Your task to perform on an android device: turn on location history Image 0: 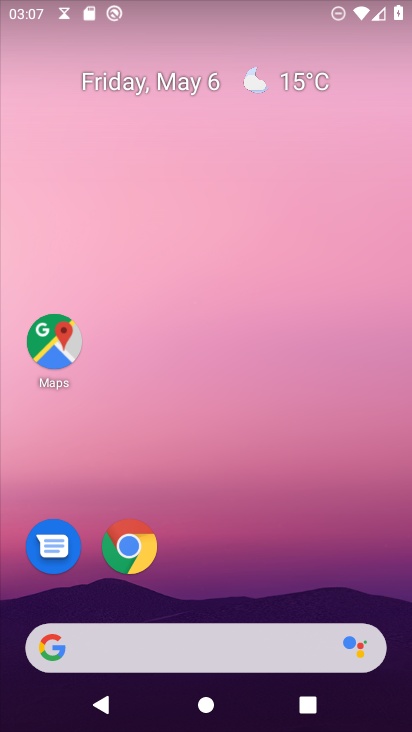
Step 0: click (134, 554)
Your task to perform on an android device: turn on location history Image 1: 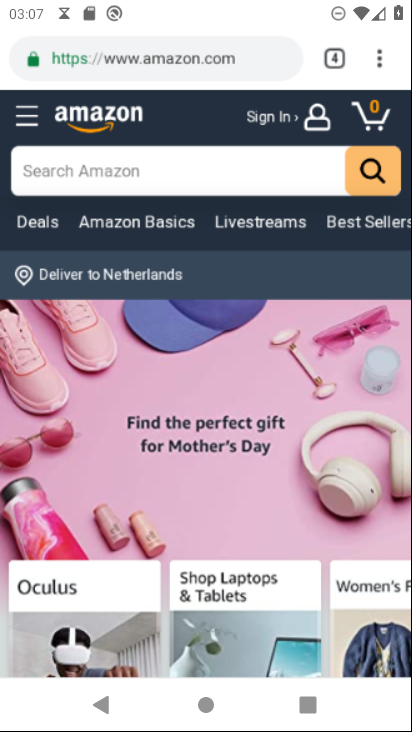
Step 1: press home button
Your task to perform on an android device: turn on location history Image 2: 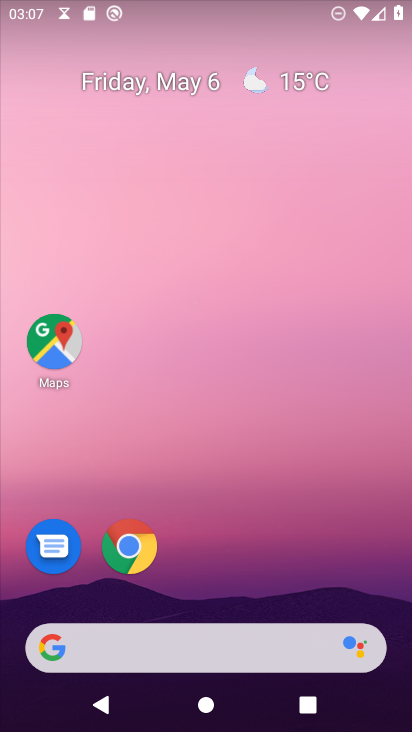
Step 2: drag from (258, 599) to (259, 199)
Your task to perform on an android device: turn on location history Image 3: 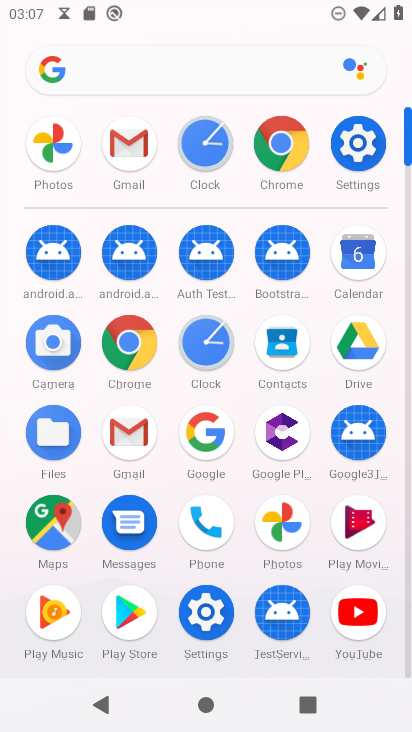
Step 3: click (352, 141)
Your task to perform on an android device: turn on location history Image 4: 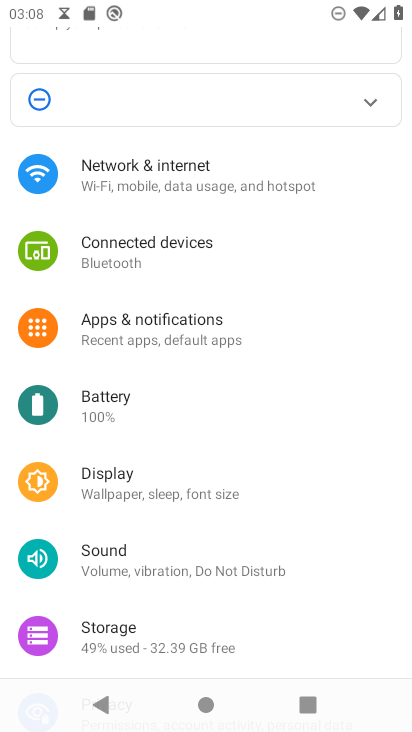
Step 4: click (289, 122)
Your task to perform on an android device: turn on location history Image 5: 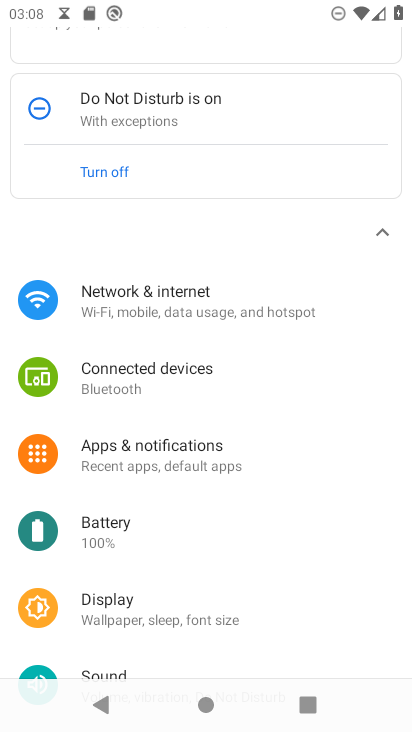
Step 5: click (293, 128)
Your task to perform on an android device: turn on location history Image 6: 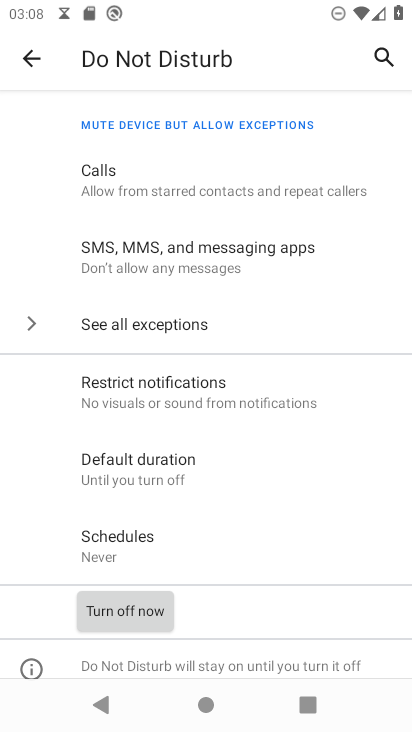
Step 6: click (26, 66)
Your task to perform on an android device: turn on location history Image 7: 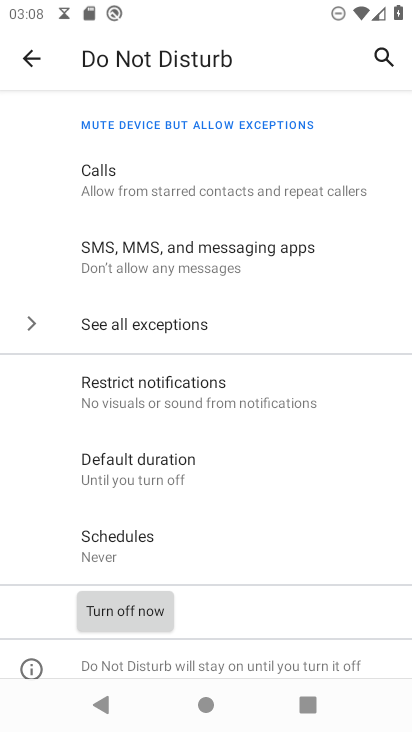
Step 7: click (27, 64)
Your task to perform on an android device: turn on location history Image 8: 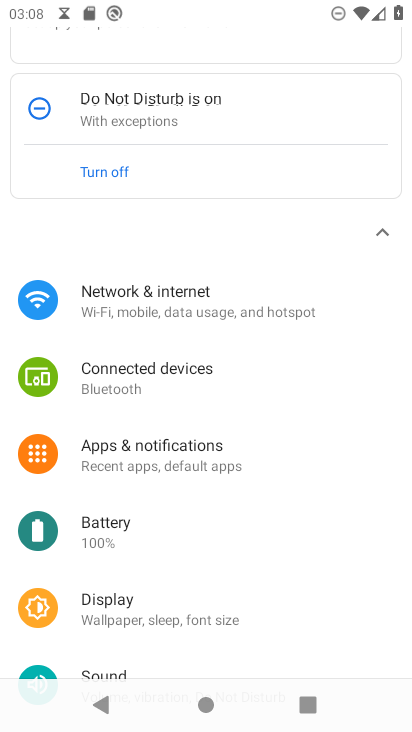
Step 8: drag from (203, 637) to (185, 354)
Your task to perform on an android device: turn on location history Image 9: 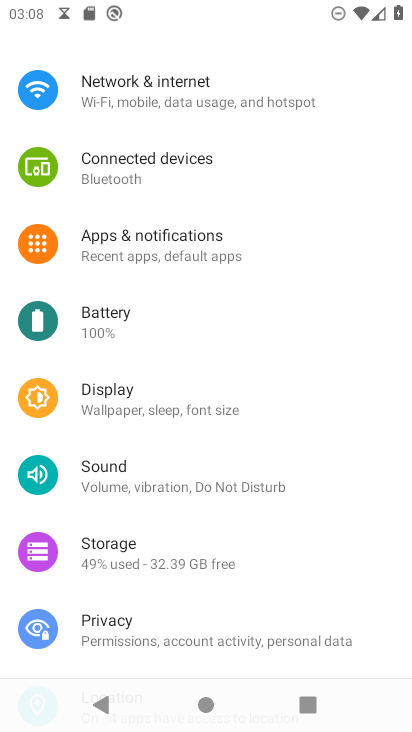
Step 9: drag from (157, 590) to (124, 313)
Your task to perform on an android device: turn on location history Image 10: 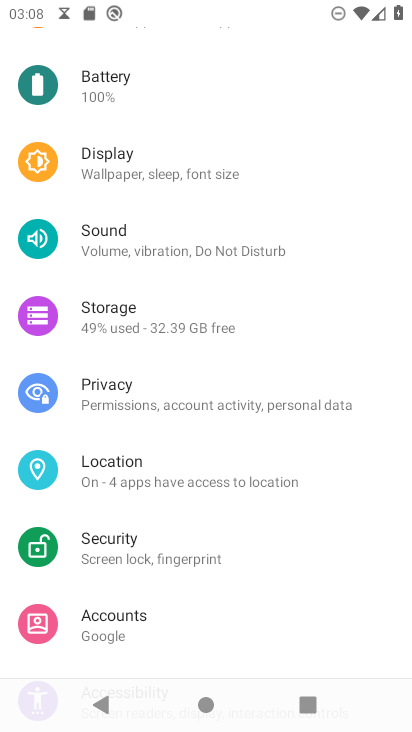
Step 10: click (132, 465)
Your task to perform on an android device: turn on location history Image 11: 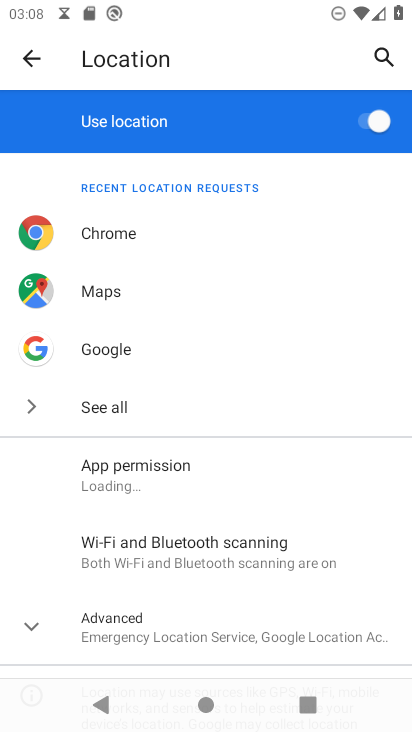
Step 11: click (219, 637)
Your task to perform on an android device: turn on location history Image 12: 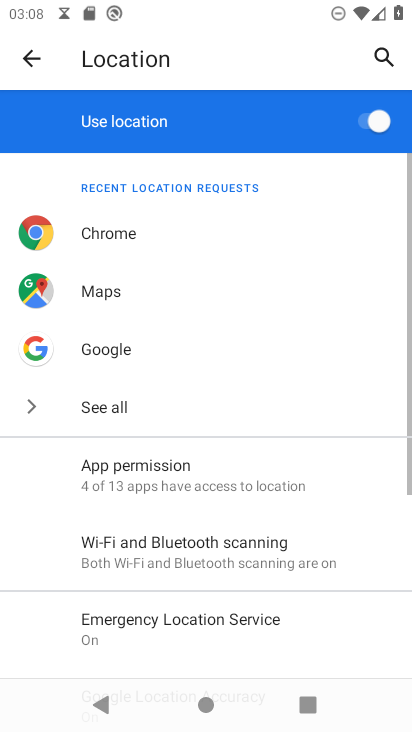
Step 12: drag from (221, 622) to (186, 371)
Your task to perform on an android device: turn on location history Image 13: 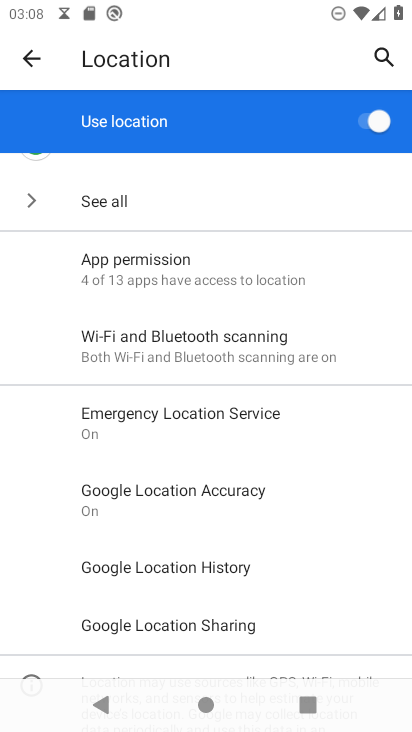
Step 13: click (229, 565)
Your task to perform on an android device: turn on location history Image 14: 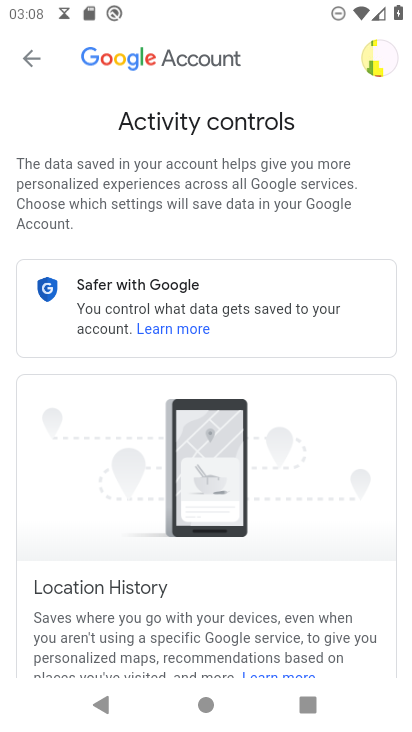
Step 14: drag from (277, 635) to (268, 302)
Your task to perform on an android device: turn on location history Image 15: 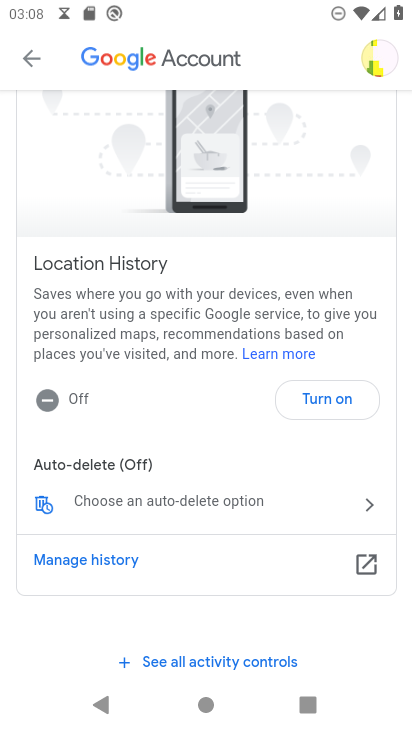
Step 15: click (347, 393)
Your task to perform on an android device: turn on location history Image 16: 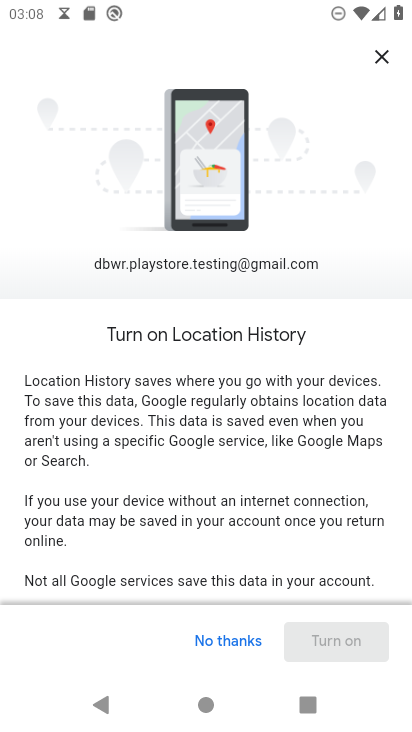
Step 16: drag from (261, 564) to (248, 235)
Your task to perform on an android device: turn on location history Image 17: 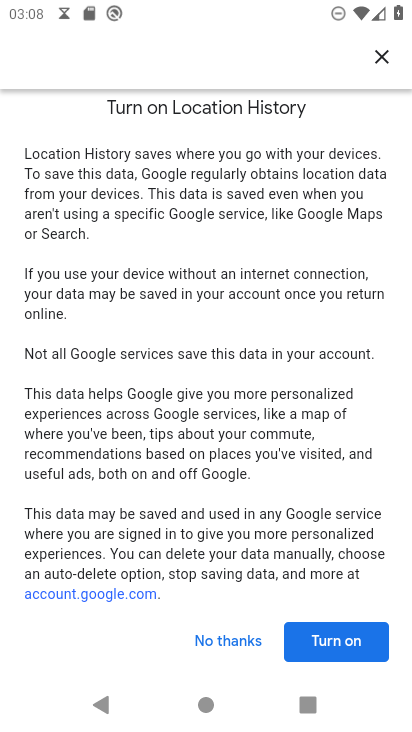
Step 17: click (333, 635)
Your task to perform on an android device: turn on location history Image 18: 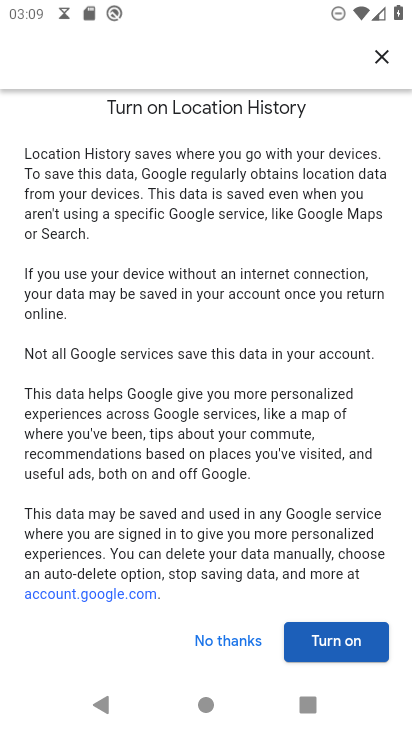
Step 18: click (336, 640)
Your task to perform on an android device: turn on location history Image 19: 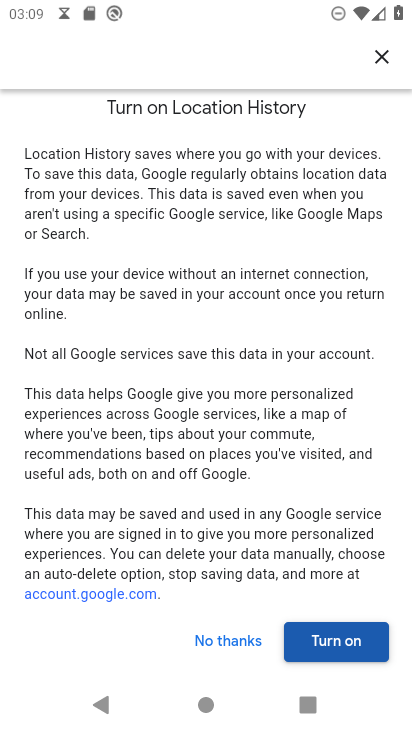
Step 19: click (319, 645)
Your task to perform on an android device: turn on location history Image 20: 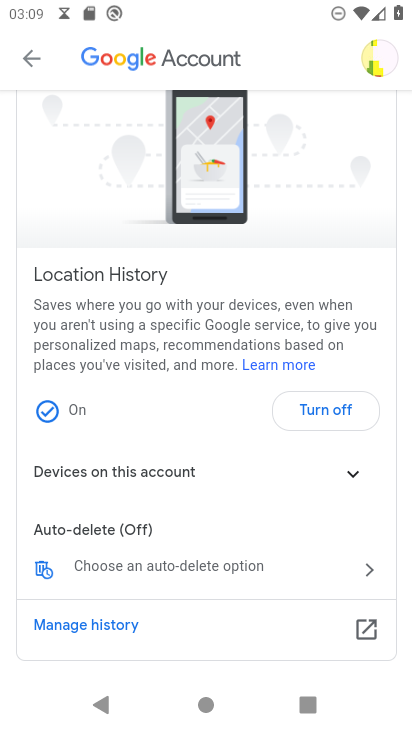
Step 20: task complete